Your task to perform on an android device: Go to sound settings Image 0: 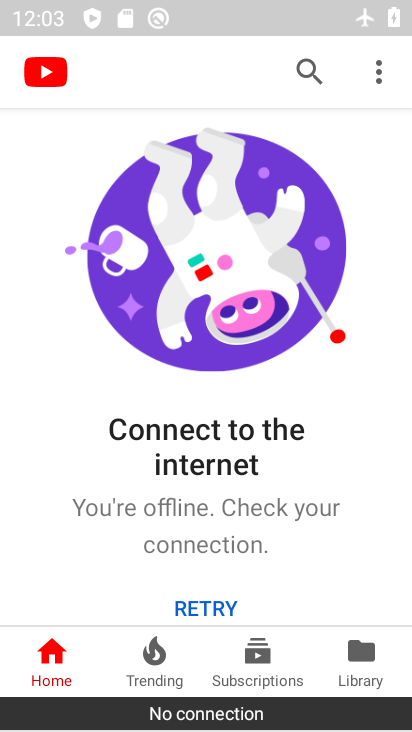
Step 0: press home button
Your task to perform on an android device: Go to sound settings Image 1: 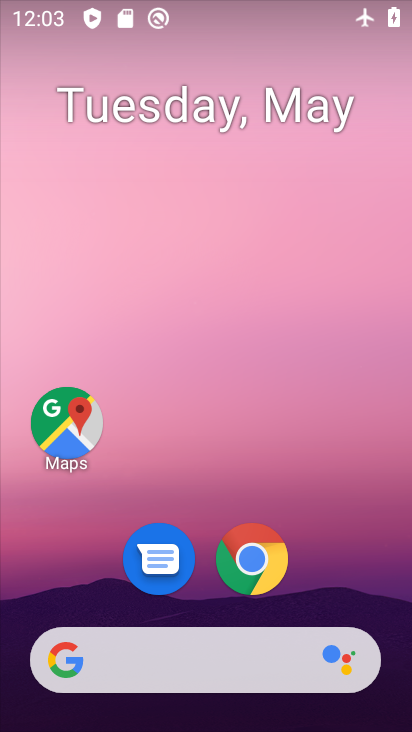
Step 1: drag from (94, 599) to (234, 85)
Your task to perform on an android device: Go to sound settings Image 2: 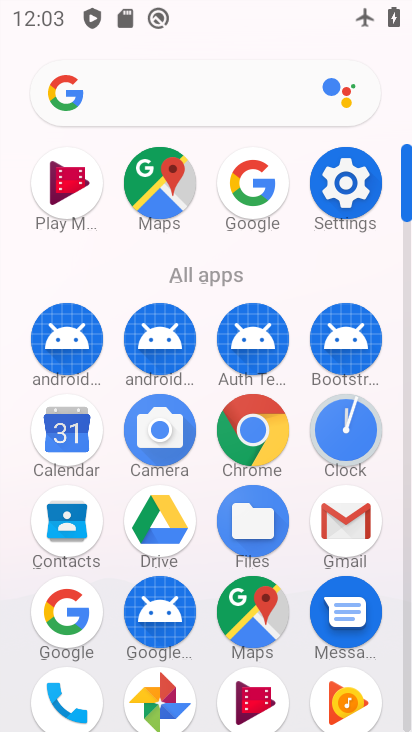
Step 2: drag from (193, 506) to (304, 229)
Your task to perform on an android device: Go to sound settings Image 3: 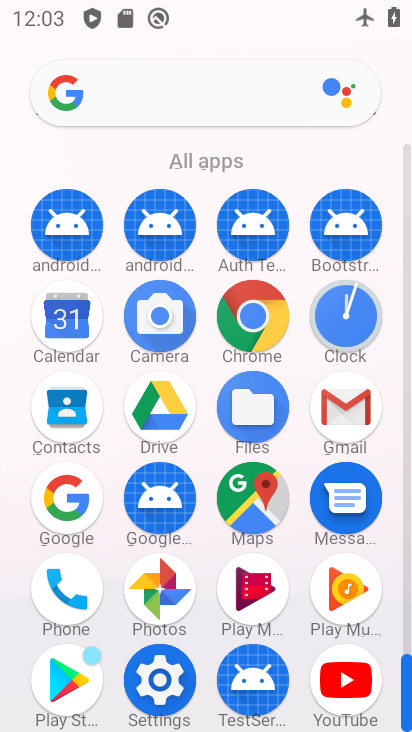
Step 3: click (159, 684)
Your task to perform on an android device: Go to sound settings Image 4: 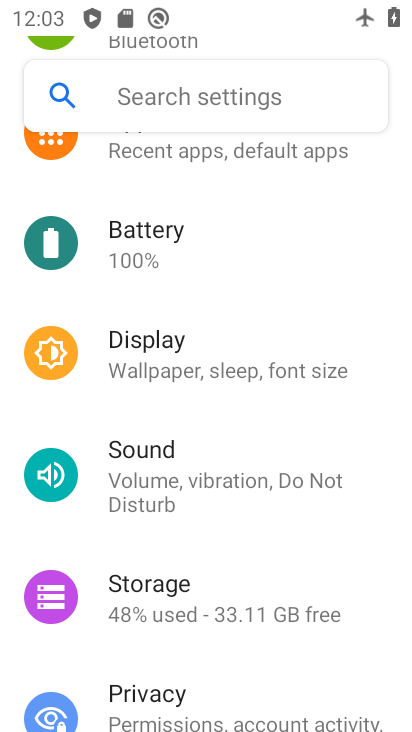
Step 4: click (174, 486)
Your task to perform on an android device: Go to sound settings Image 5: 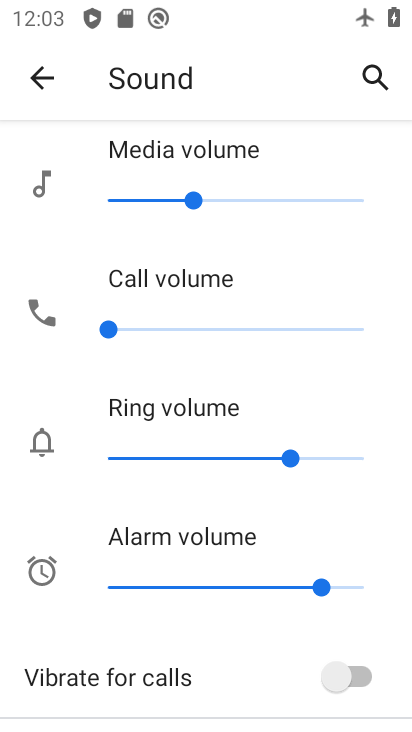
Step 5: task complete